Your task to perform on an android device: Open the stopwatch Image 0: 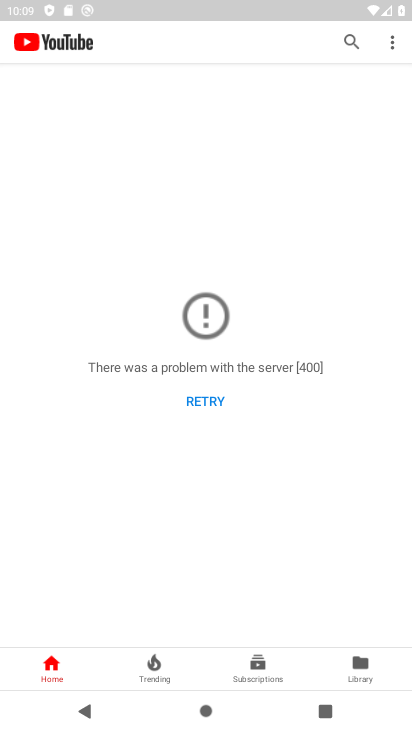
Step 0: press home button
Your task to perform on an android device: Open the stopwatch Image 1: 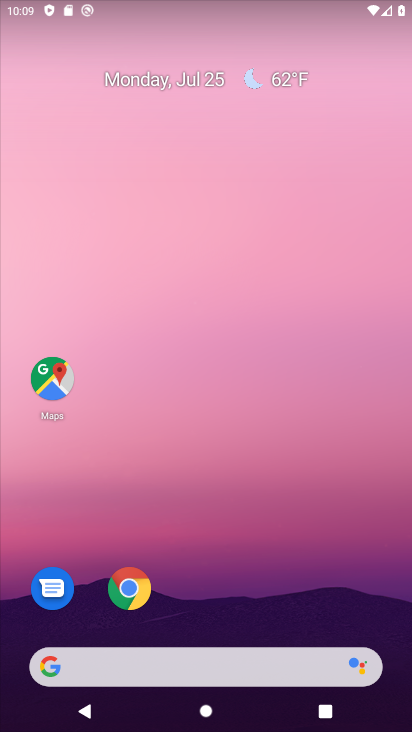
Step 1: drag from (265, 609) to (58, 160)
Your task to perform on an android device: Open the stopwatch Image 2: 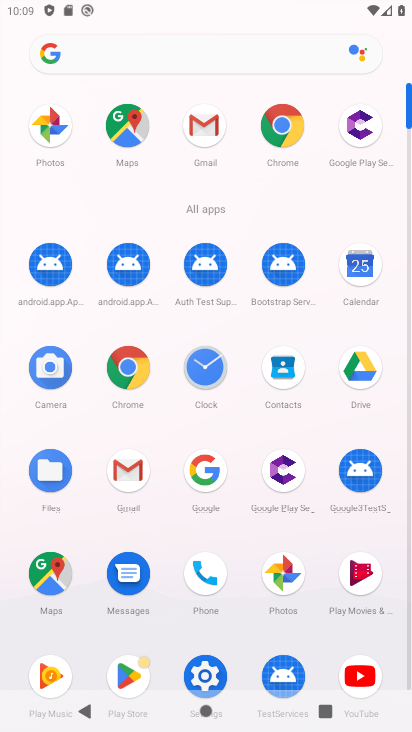
Step 2: click (206, 373)
Your task to perform on an android device: Open the stopwatch Image 3: 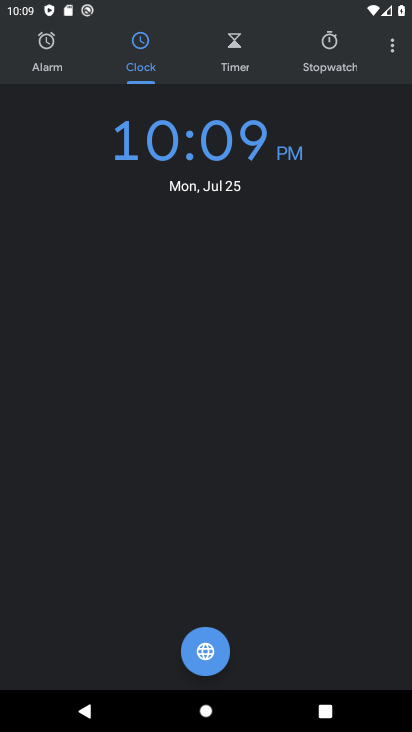
Step 3: click (323, 76)
Your task to perform on an android device: Open the stopwatch Image 4: 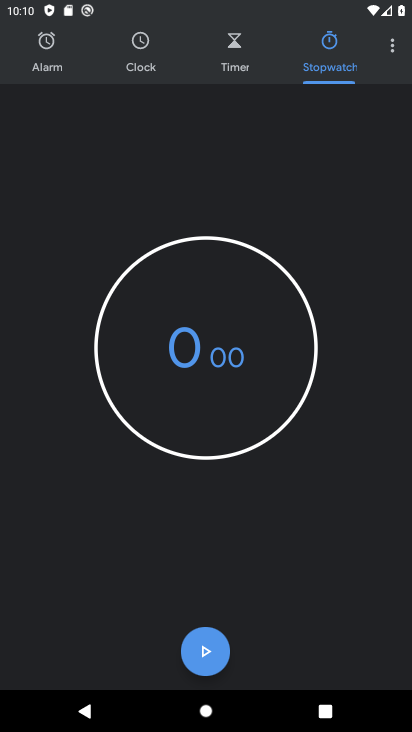
Step 4: task complete